Your task to perform on an android device: set an alarm Image 0: 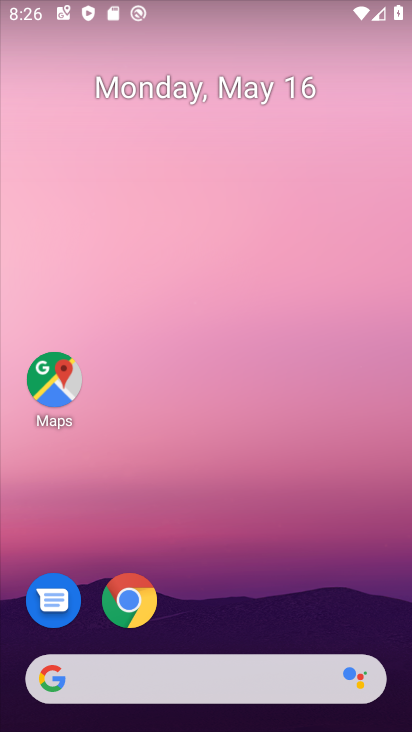
Step 0: drag from (324, 568) to (345, 65)
Your task to perform on an android device: set an alarm Image 1: 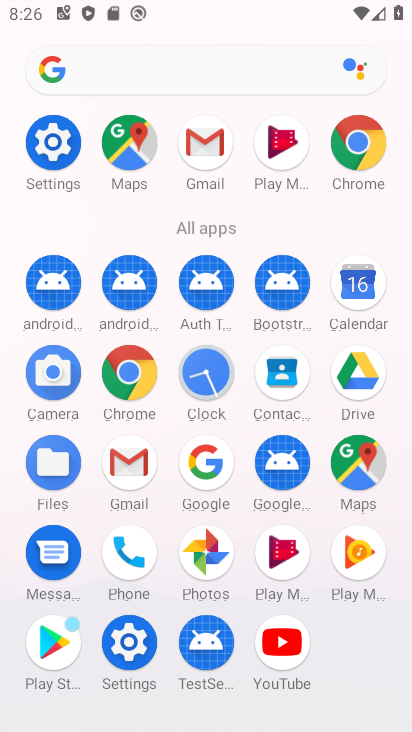
Step 1: click (200, 357)
Your task to perform on an android device: set an alarm Image 2: 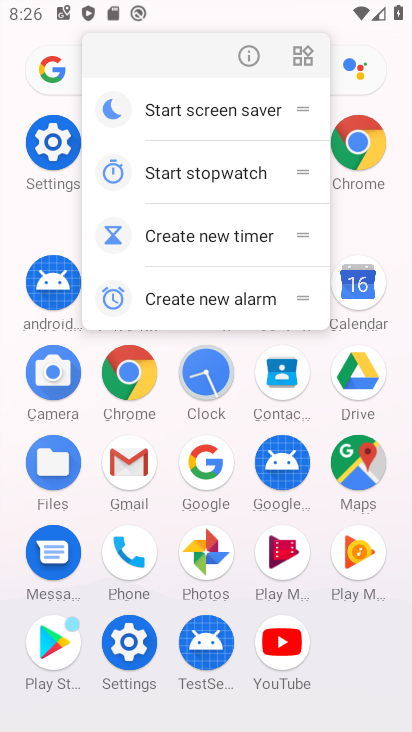
Step 2: click (200, 357)
Your task to perform on an android device: set an alarm Image 3: 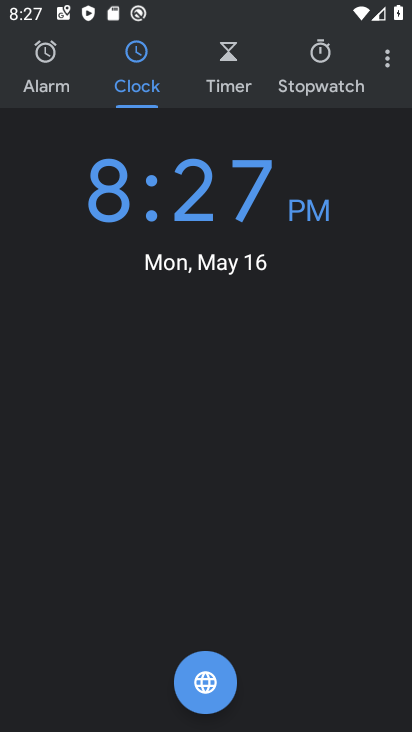
Step 3: click (240, 91)
Your task to perform on an android device: set an alarm Image 4: 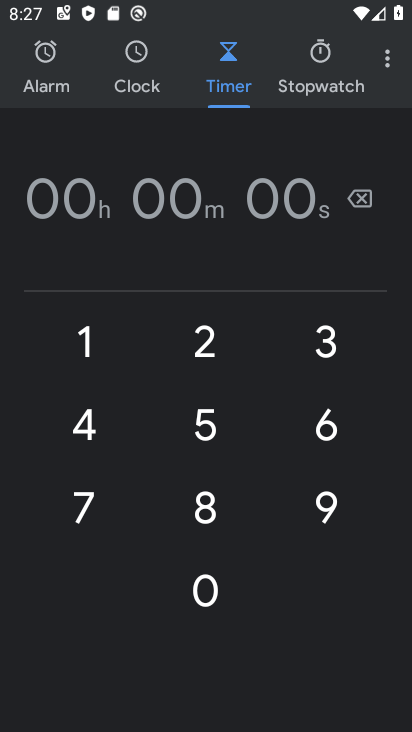
Step 4: click (209, 347)
Your task to perform on an android device: set an alarm Image 5: 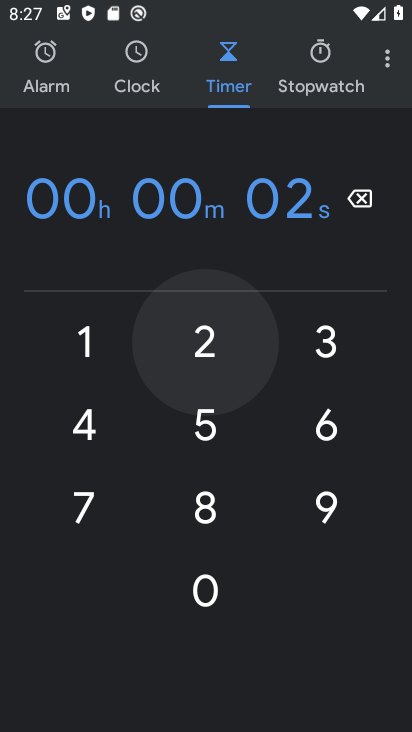
Step 5: click (207, 403)
Your task to perform on an android device: set an alarm Image 6: 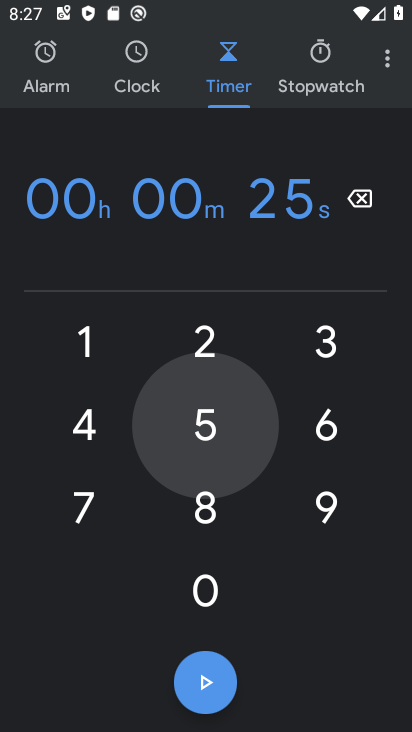
Step 6: click (227, 357)
Your task to perform on an android device: set an alarm Image 7: 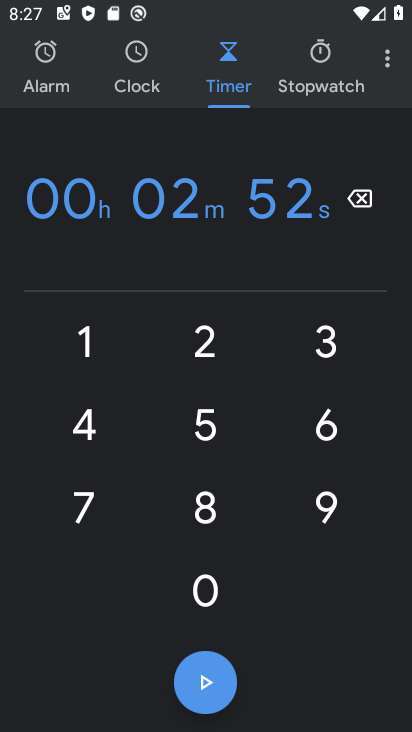
Step 7: click (225, 410)
Your task to perform on an android device: set an alarm Image 8: 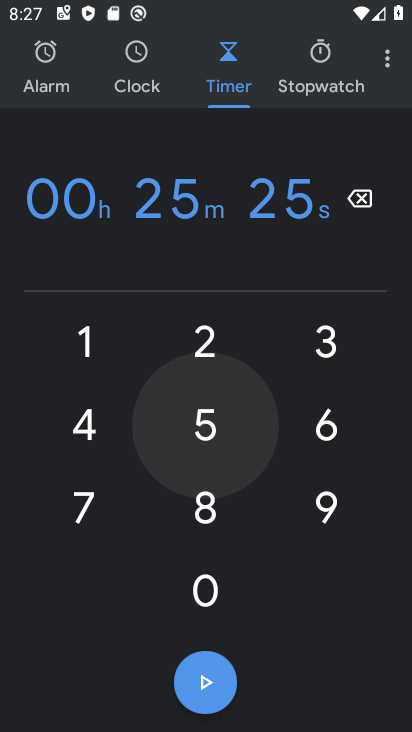
Step 8: click (227, 358)
Your task to perform on an android device: set an alarm Image 9: 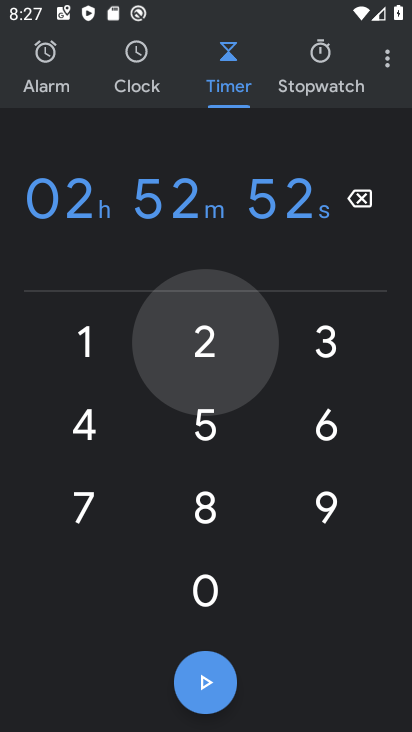
Step 9: click (215, 412)
Your task to perform on an android device: set an alarm Image 10: 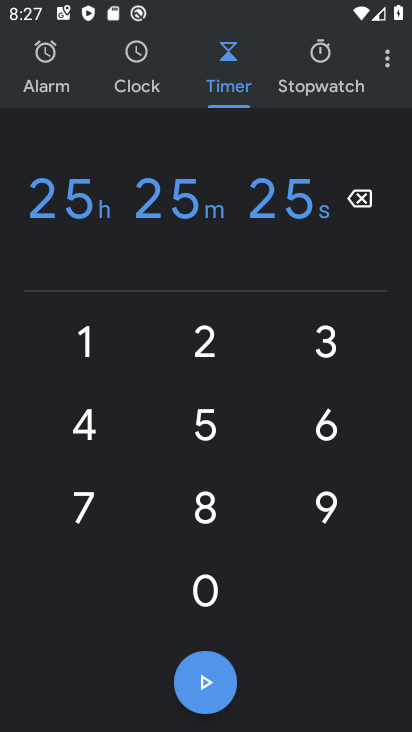
Step 10: click (207, 687)
Your task to perform on an android device: set an alarm Image 11: 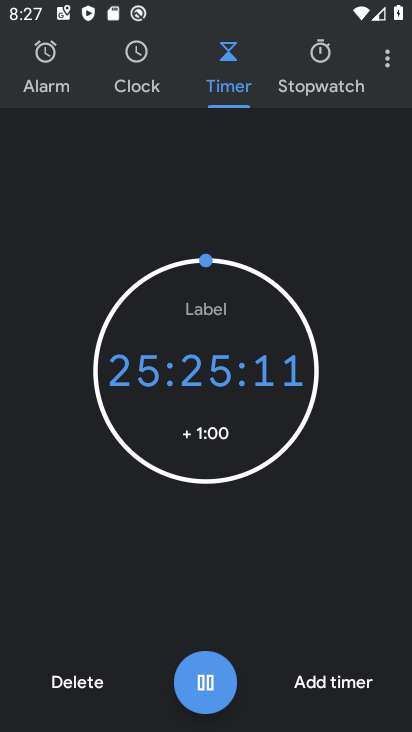
Step 11: task complete